Your task to perform on an android device: Do I have any events today? Image 0: 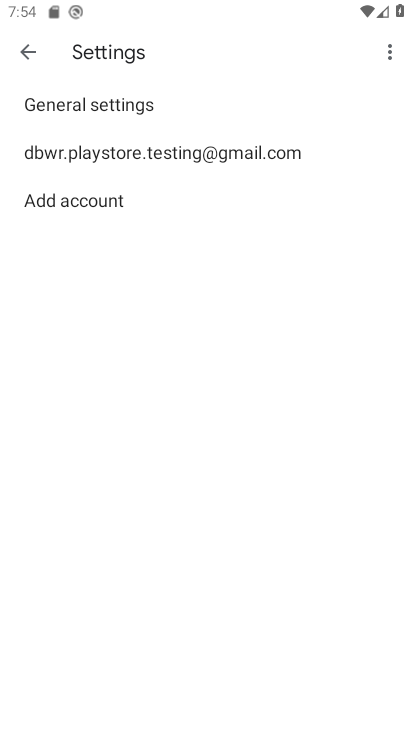
Step 0: press home button
Your task to perform on an android device: Do I have any events today? Image 1: 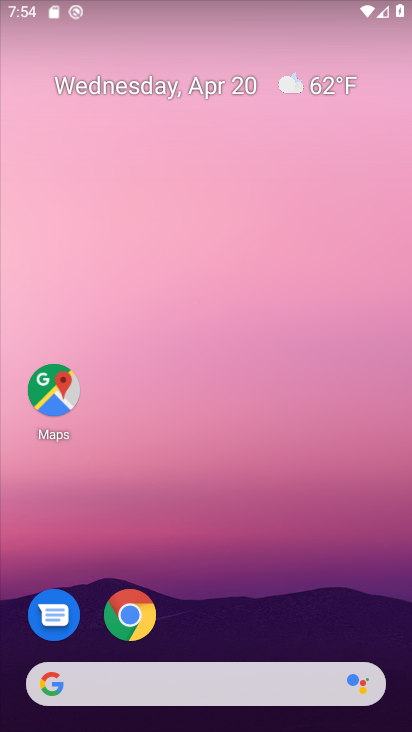
Step 1: drag from (192, 597) to (238, 52)
Your task to perform on an android device: Do I have any events today? Image 2: 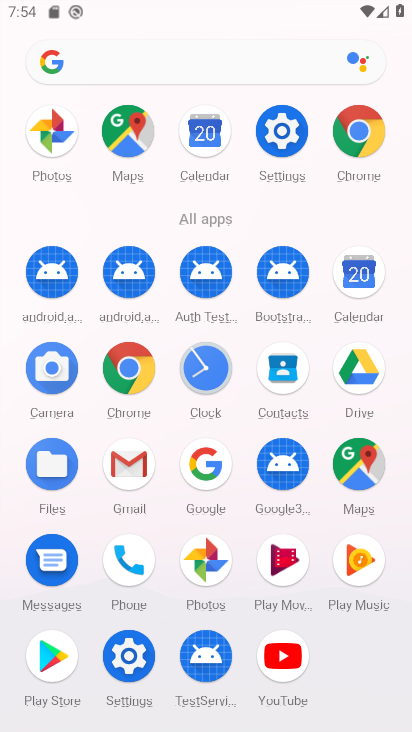
Step 2: click (363, 282)
Your task to perform on an android device: Do I have any events today? Image 3: 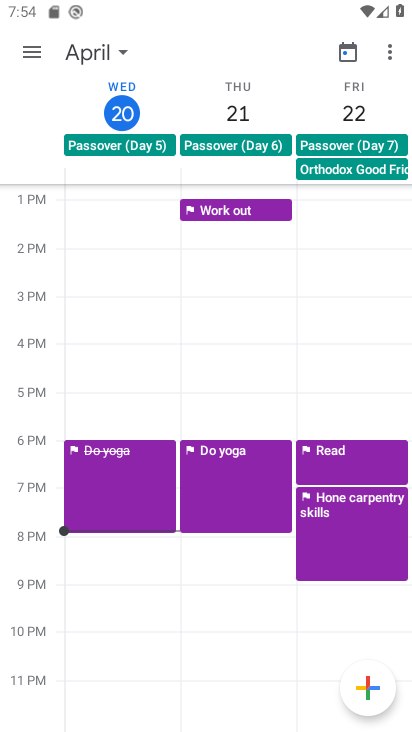
Step 3: click (28, 52)
Your task to perform on an android device: Do I have any events today? Image 4: 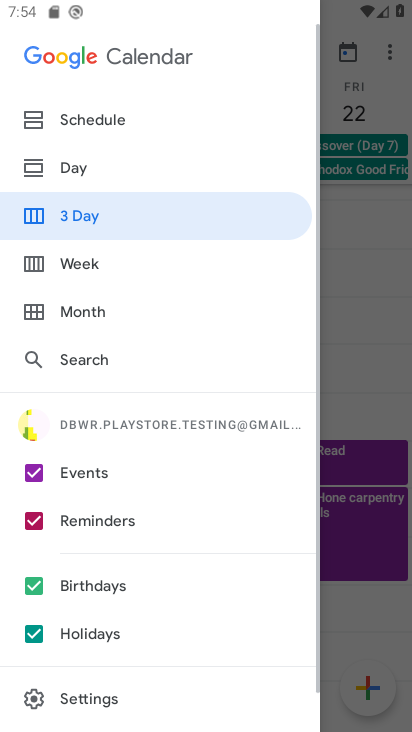
Step 4: click (28, 514)
Your task to perform on an android device: Do I have any events today? Image 5: 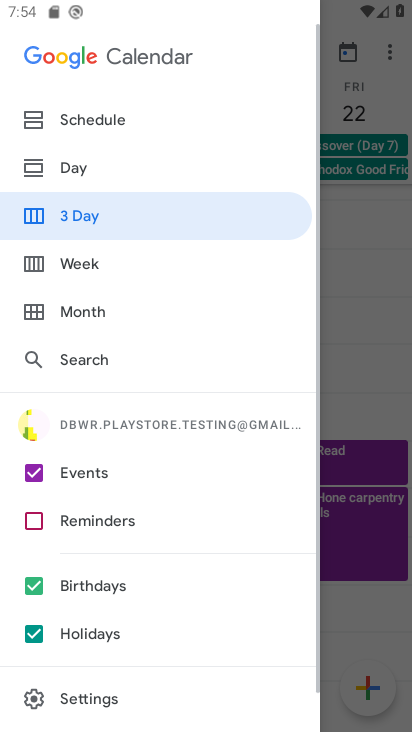
Step 5: click (37, 585)
Your task to perform on an android device: Do I have any events today? Image 6: 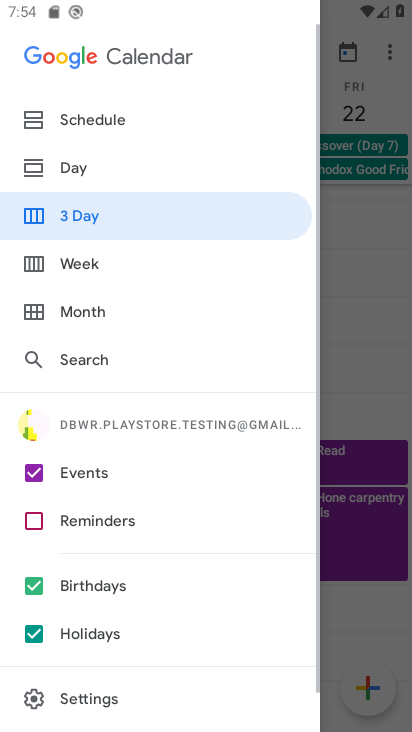
Step 6: click (27, 581)
Your task to perform on an android device: Do I have any events today? Image 7: 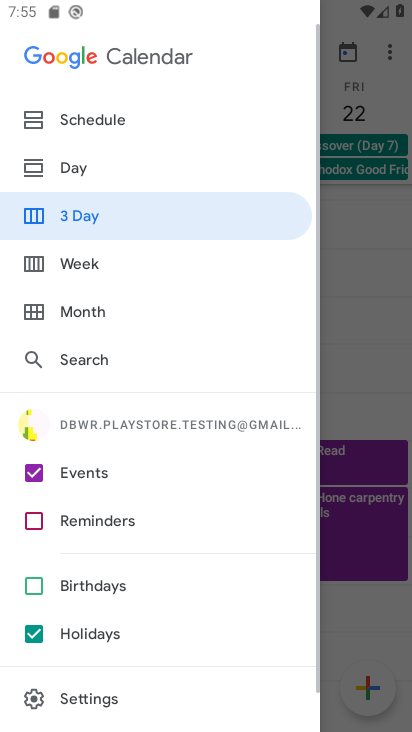
Step 7: click (35, 635)
Your task to perform on an android device: Do I have any events today? Image 8: 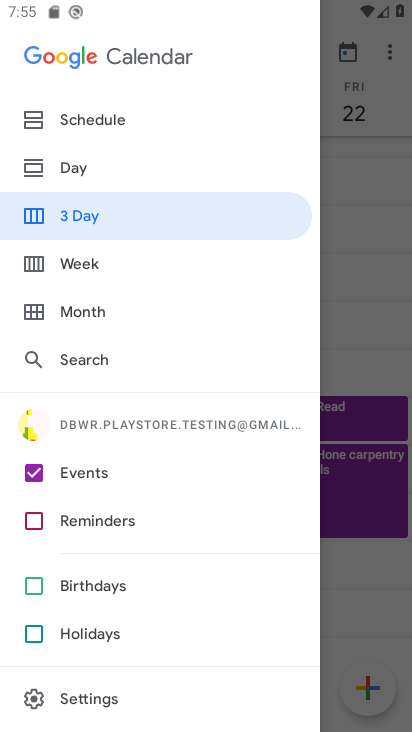
Step 8: click (101, 176)
Your task to perform on an android device: Do I have any events today? Image 9: 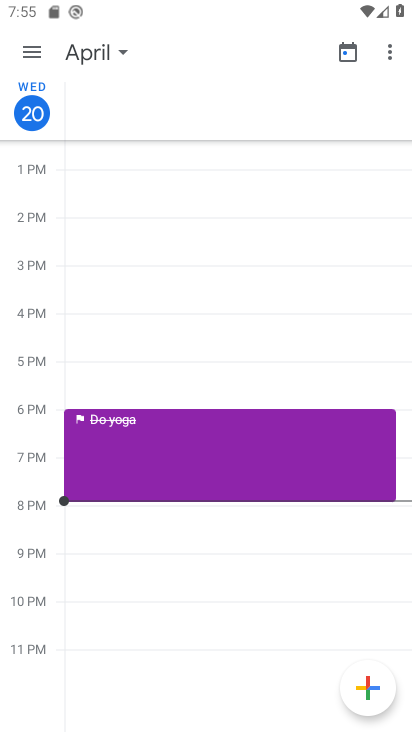
Step 9: task complete